Your task to perform on an android device: Open maps Image 0: 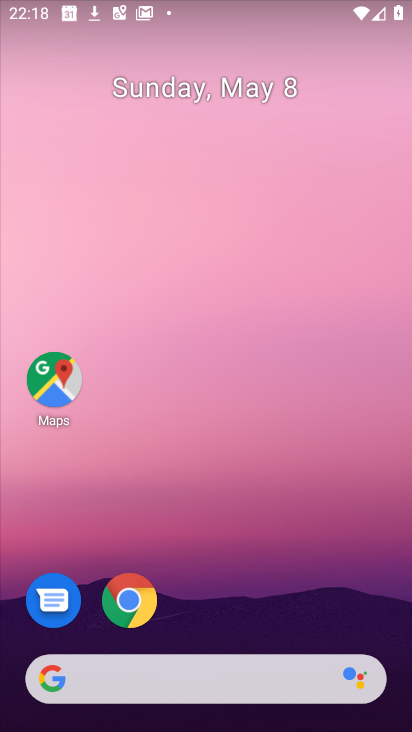
Step 0: drag from (275, 705) to (350, 213)
Your task to perform on an android device: Open maps Image 1: 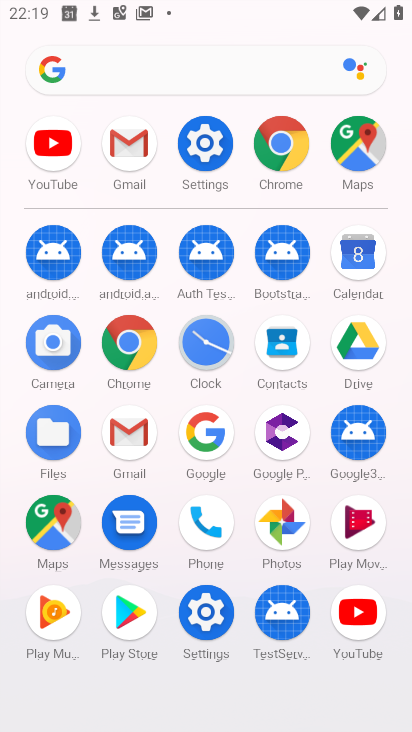
Step 1: click (51, 510)
Your task to perform on an android device: Open maps Image 2: 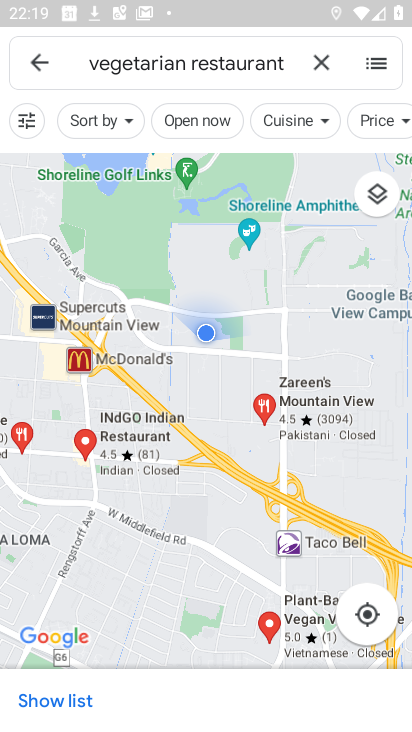
Step 2: click (363, 607)
Your task to perform on an android device: Open maps Image 3: 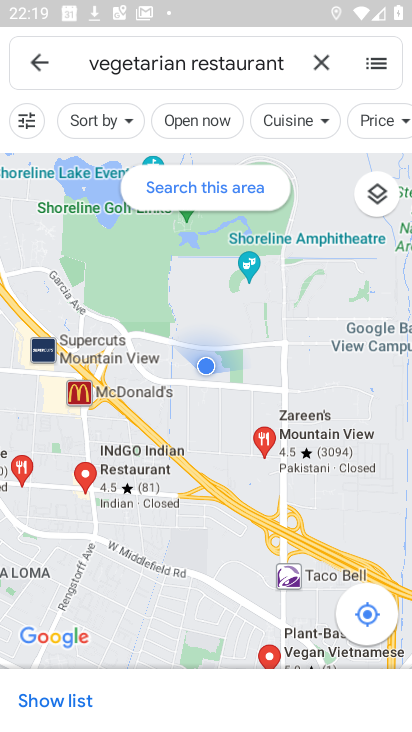
Step 3: task complete